Your task to perform on an android device: change notification settings in the gmail app Image 0: 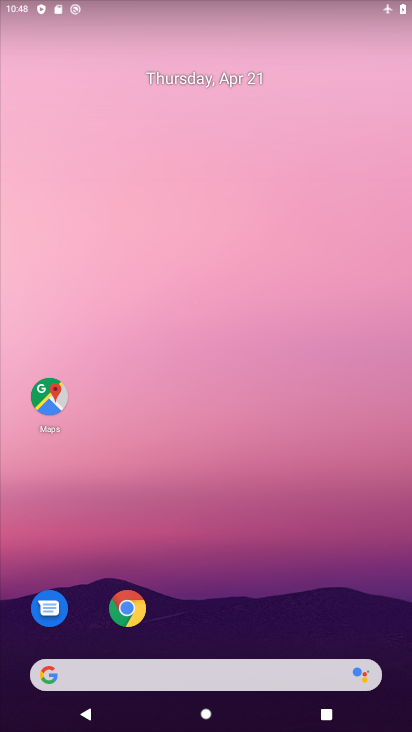
Step 0: drag from (155, 629) to (241, 190)
Your task to perform on an android device: change notification settings in the gmail app Image 1: 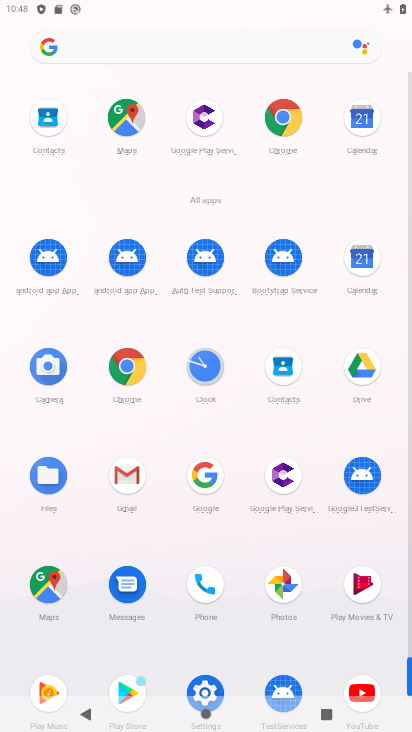
Step 1: click (139, 477)
Your task to perform on an android device: change notification settings in the gmail app Image 2: 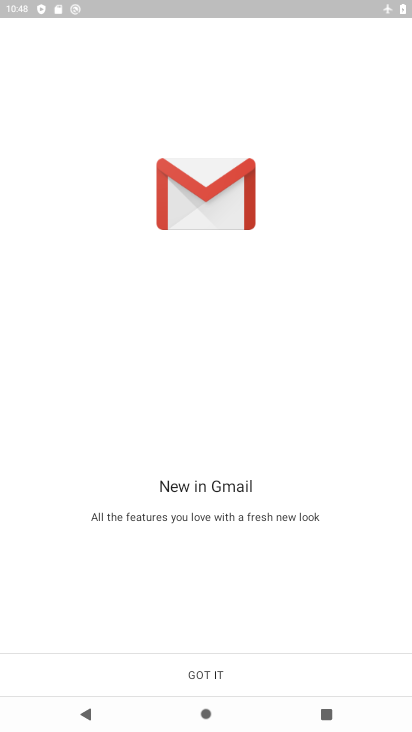
Step 2: click (215, 682)
Your task to perform on an android device: change notification settings in the gmail app Image 3: 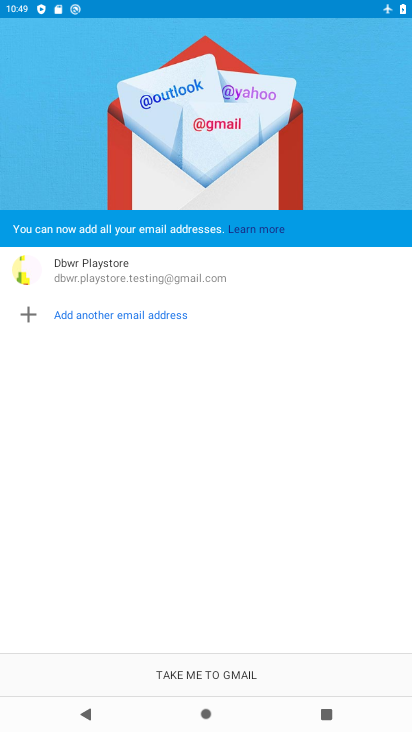
Step 3: click (221, 668)
Your task to perform on an android device: change notification settings in the gmail app Image 4: 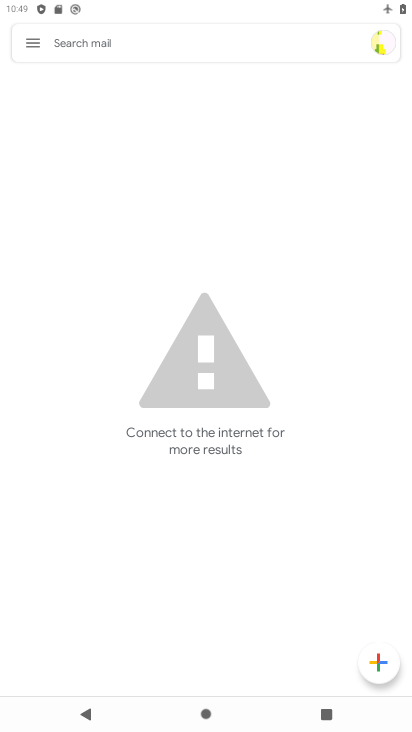
Step 4: task complete